Your task to perform on an android device: turn off data saver in the chrome app Image 0: 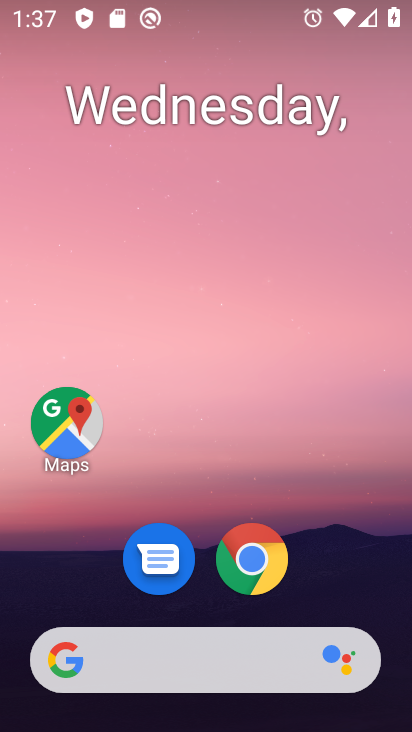
Step 0: drag from (359, 587) to (294, 83)
Your task to perform on an android device: turn off data saver in the chrome app Image 1: 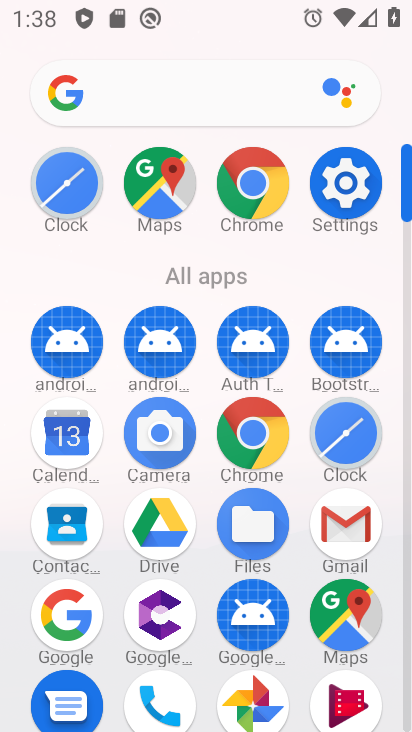
Step 1: click (258, 178)
Your task to perform on an android device: turn off data saver in the chrome app Image 2: 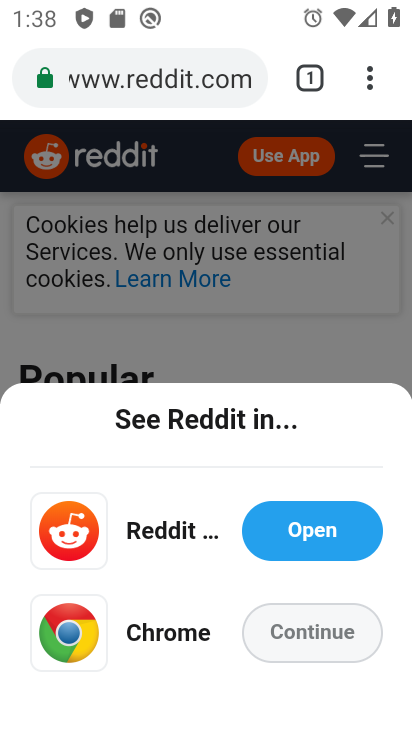
Step 2: click (370, 91)
Your task to perform on an android device: turn off data saver in the chrome app Image 3: 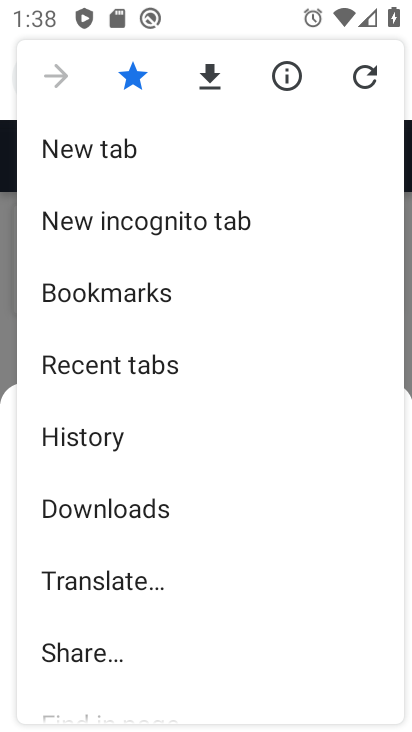
Step 3: drag from (111, 689) to (85, 357)
Your task to perform on an android device: turn off data saver in the chrome app Image 4: 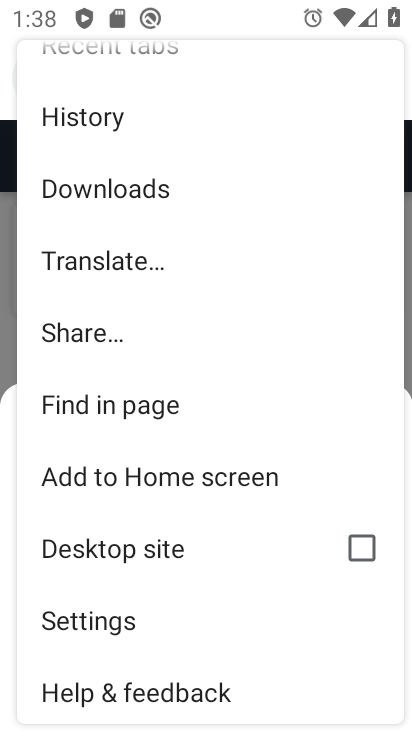
Step 4: click (140, 613)
Your task to perform on an android device: turn off data saver in the chrome app Image 5: 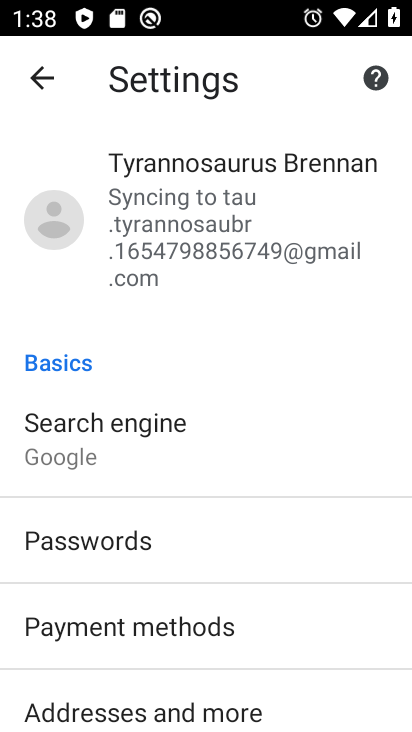
Step 5: drag from (322, 704) to (259, 193)
Your task to perform on an android device: turn off data saver in the chrome app Image 6: 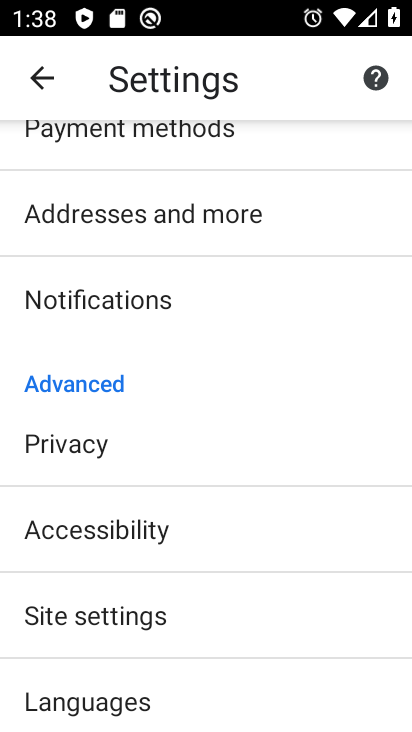
Step 6: drag from (254, 625) to (232, 159)
Your task to perform on an android device: turn off data saver in the chrome app Image 7: 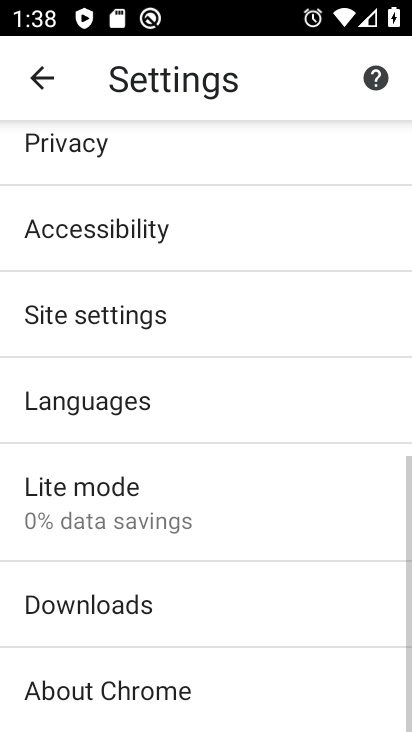
Step 7: click (146, 517)
Your task to perform on an android device: turn off data saver in the chrome app Image 8: 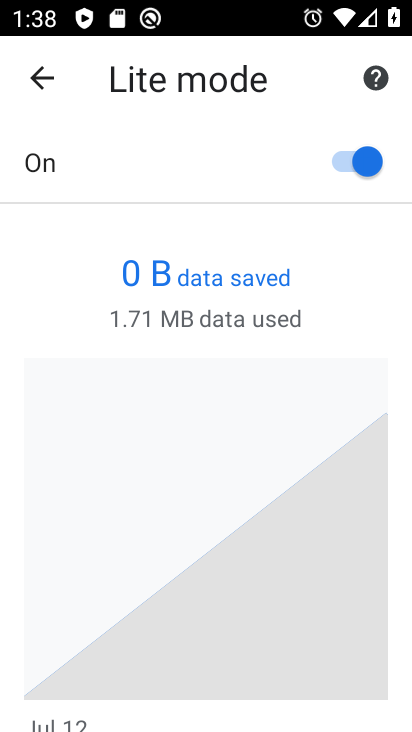
Step 8: click (345, 153)
Your task to perform on an android device: turn off data saver in the chrome app Image 9: 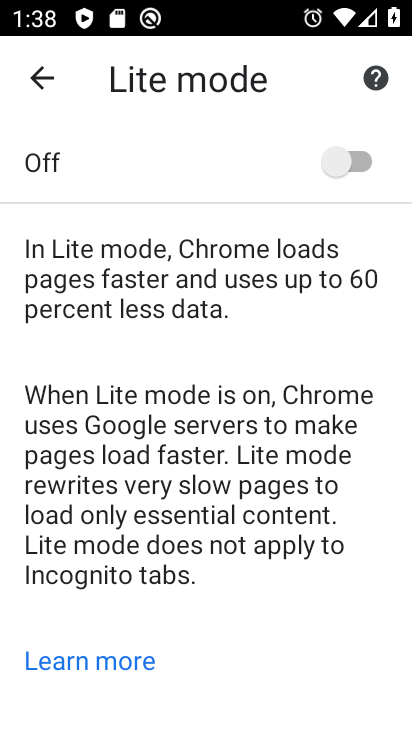
Step 9: task complete